Your task to perform on an android device: delete location history Image 0: 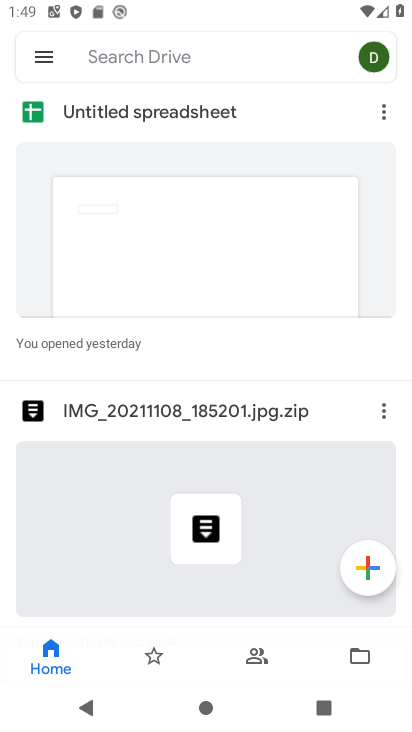
Step 0: press home button
Your task to perform on an android device: delete location history Image 1: 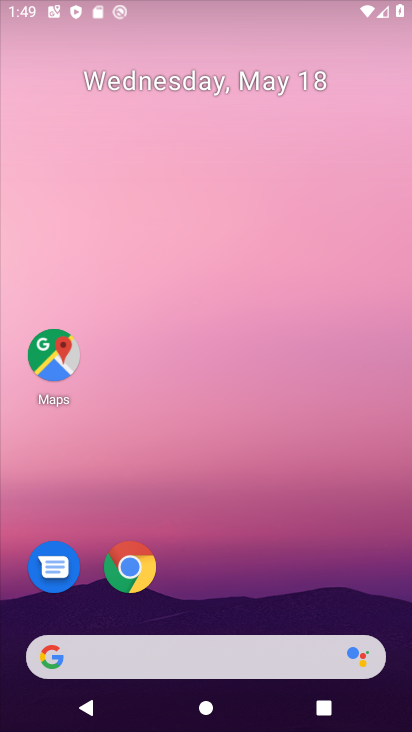
Step 1: drag from (326, 537) to (321, 168)
Your task to perform on an android device: delete location history Image 2: 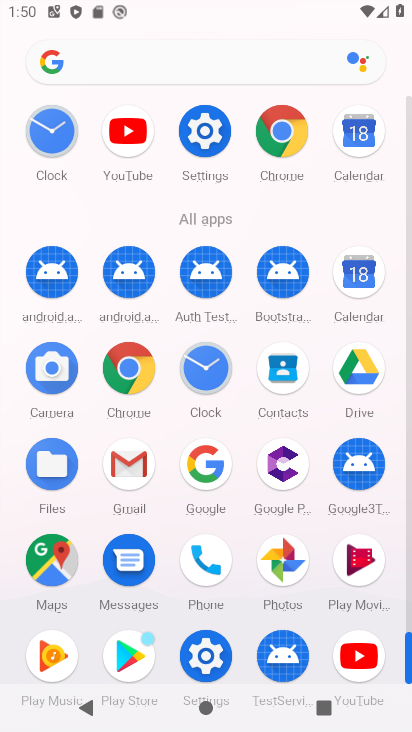
Step 2: click (52, 557)
Your task to perform on an android device: delete location history Image 3: 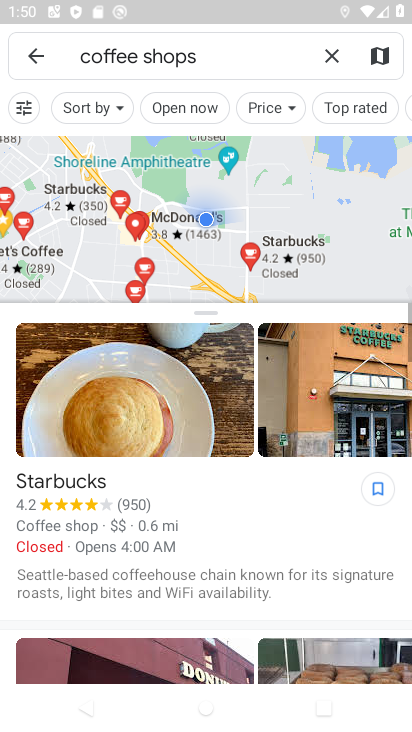
Step 3: click (37, 45)
Your task to perform on an android device: delete location history Image 4: 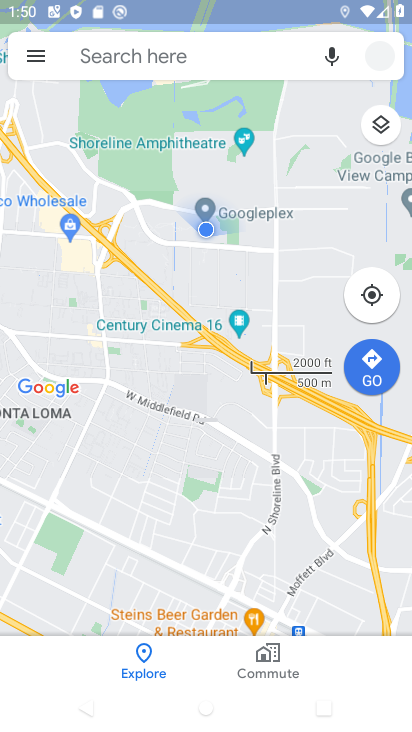
Step 4: click (39, 45)
Your task to perform on an android device: delete location history Image 5: 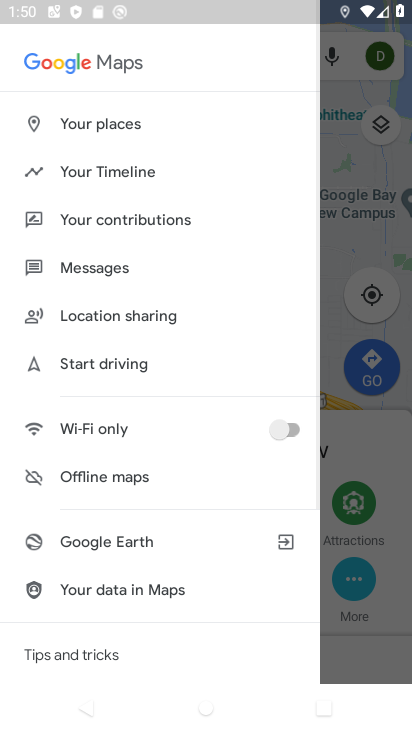
Step 5: drag from (69, 533) to (211, 147)
Your task to perform on an android device: delete location history Image 6: 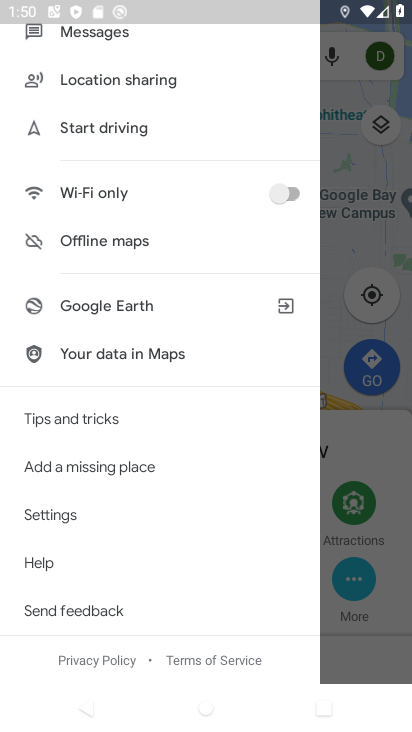
Step 6: click (57, 523)
Your task to perform on an android device: delete location history Image 7: 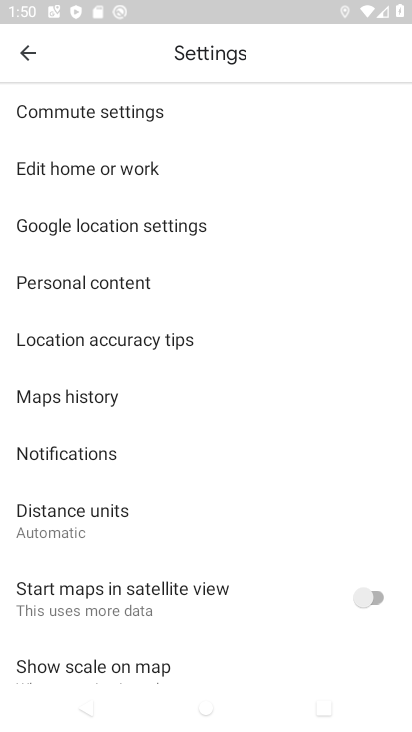
Step 7: click (102, 382)
Your task to perform on an android device: delete location history Image 8: 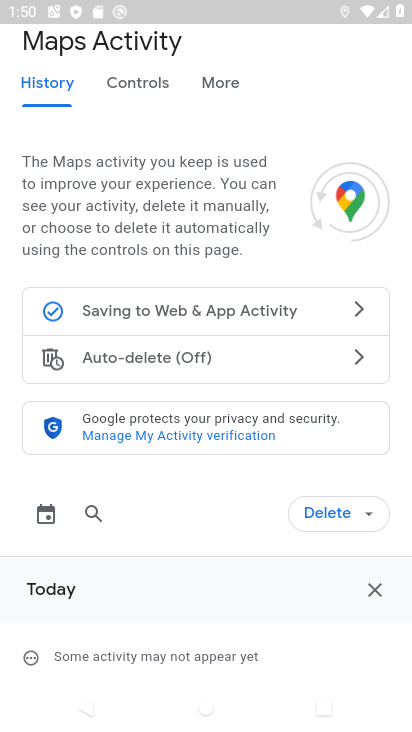
Step 8: click (335, 522)
Your task to perform on an android device: delete location history Image 9: 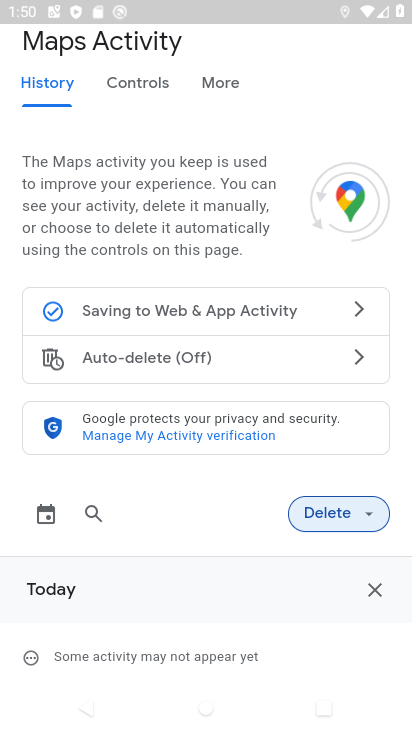
Step 9: click (351, 506)
Your task to perform on an android device: delete location history Image 10: 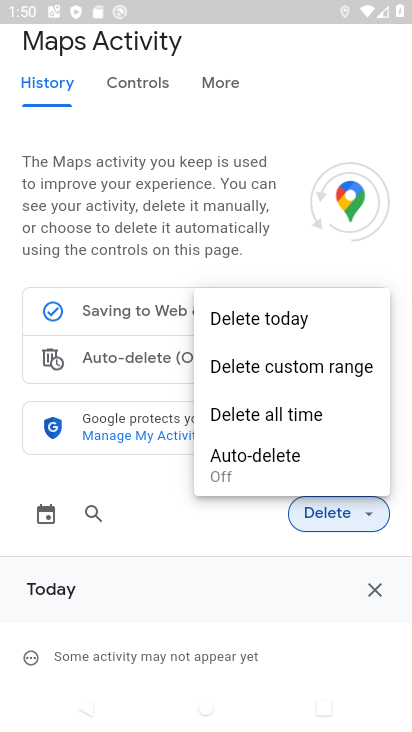
Step 10: click (366, 514)
Your task to perform on an android device: delete location history Image 11: 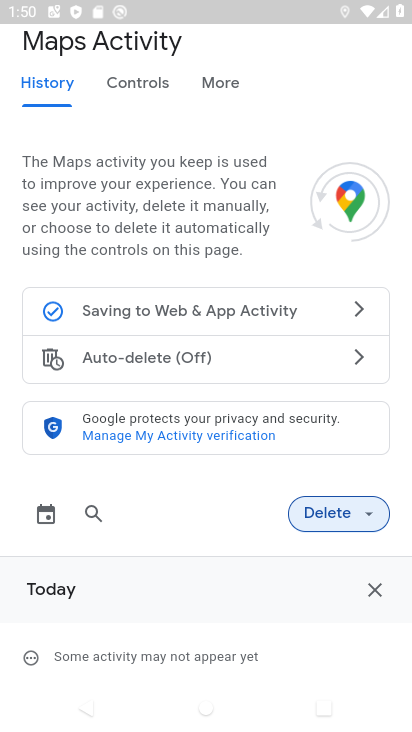
Step 11: click (367, 513)
Your task to perform on an android device: delete location history Image 12: 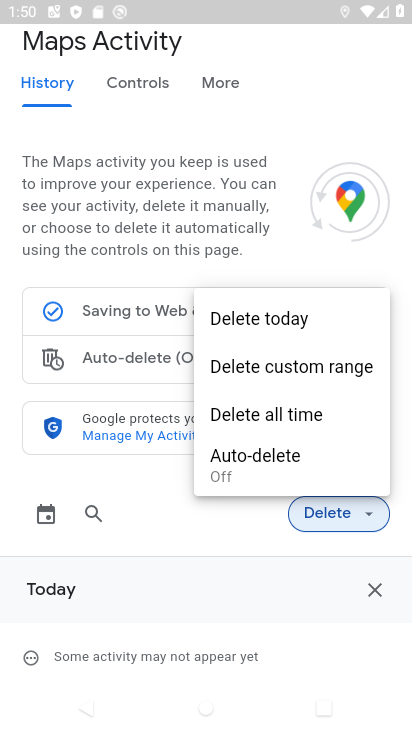
Step 12: click (283, 411)
Your task to perform on an android device: delete location history Image 13: 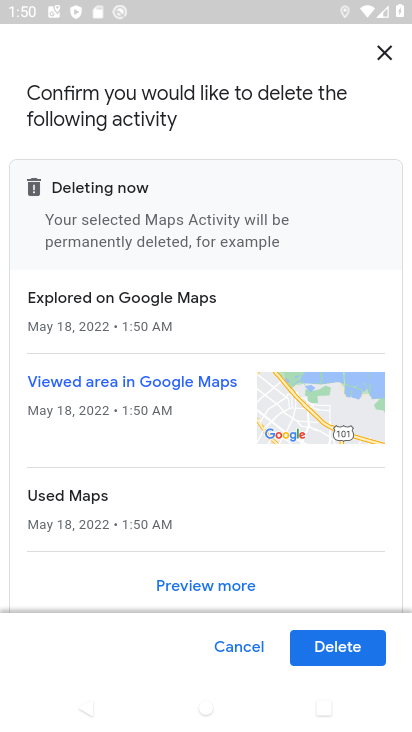
Step 13: click (360, 654)
Your task to perform on an android device: delete location history Image 14: 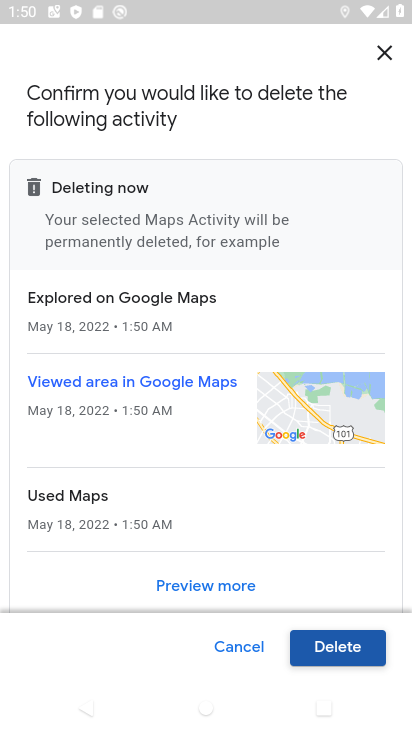
Step 14: click (360, 641)
Your task to perform on an android device: delete location history Image 15: 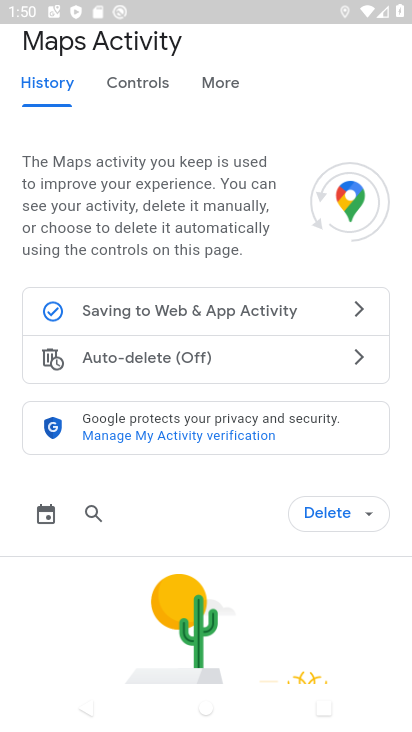
Step 15: task complete